Your task to perform on an android device: toggle translation in the chrome app Image 0: 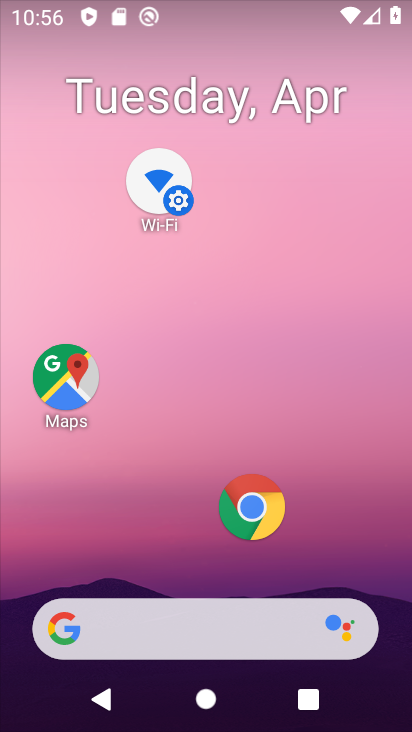
Step 0: click (262, 493)
Your task to perform on an android device: toggle translation in the chrome app Image 1: 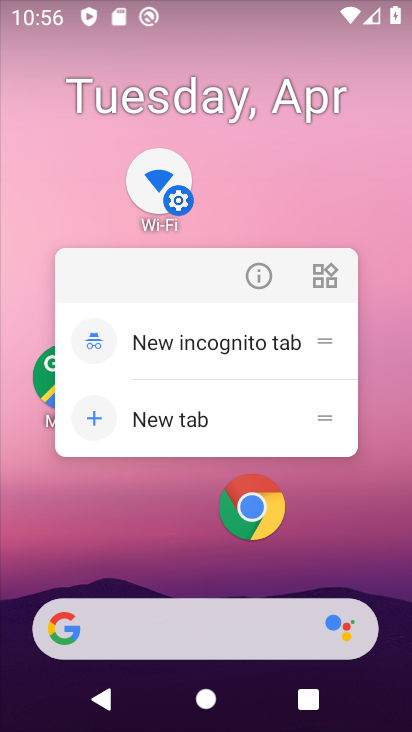
Step 1: click (267, 530)
Your task to perform on an android device: toggle translation in the chrome app Image 2: 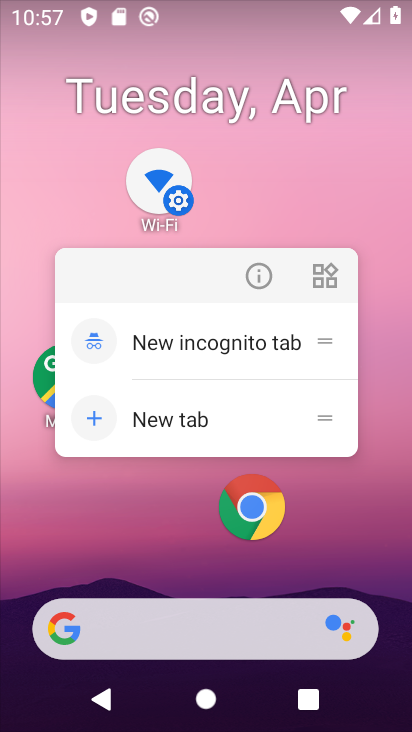
Step 2: click (272, 505)
Your task to perform on an android device: toggle translation in the chrome app Image 3: 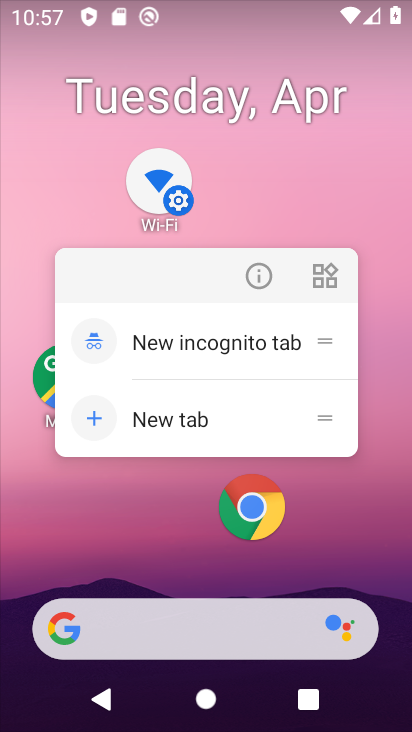
Step 3: click (253, 494)
Your task to perform on an android device: toggle translation in the chrome app Image 4: 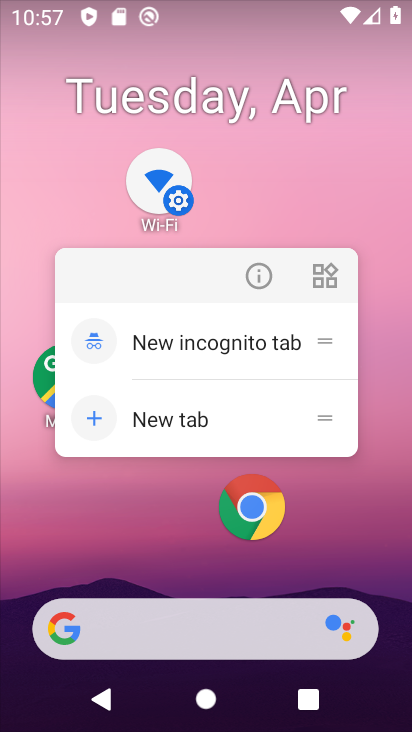
Step 4: click (248, 496)
Your task to perform on an android device: toggle translation in the chrome app Image 5: 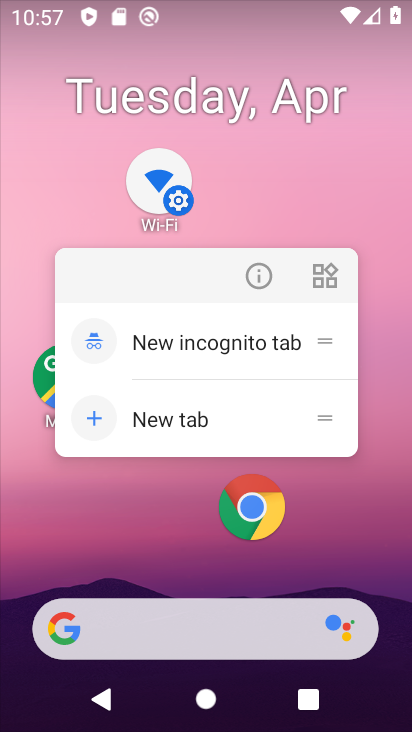
Step 5: click (248, 496)
Your task to perform on an android device: toggle translation in the chrome app Image 6: 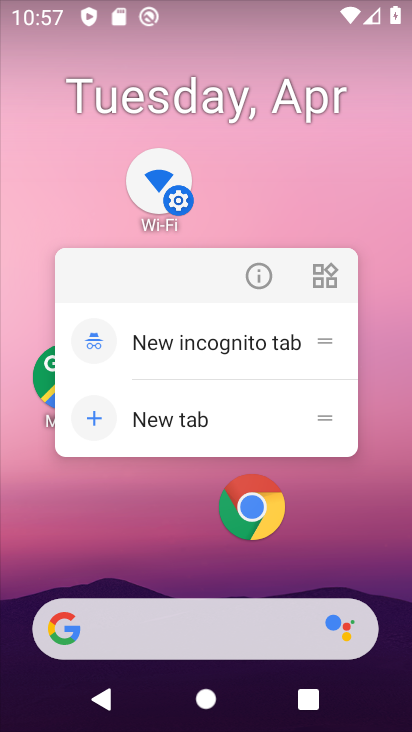
Step 6: click (248, 500)
Your task to perform on an android device: toggle translation in the chrome app Image 7: 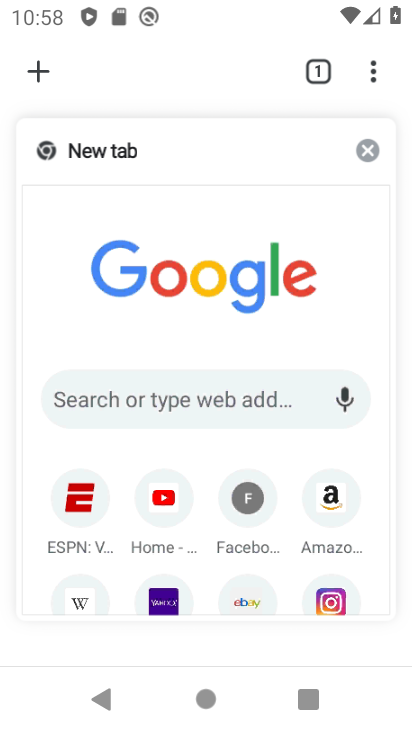
Step 7: click (376, 74)
Your task to perform on an android device: toggle translation in the chrome app Image 8: 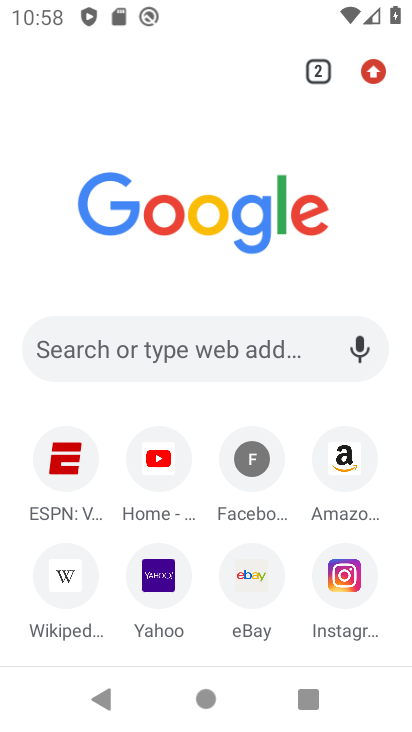
Step 8: click (328, 69)
Your task to perform on an android device: toggle translation in the chrome app Image 9: 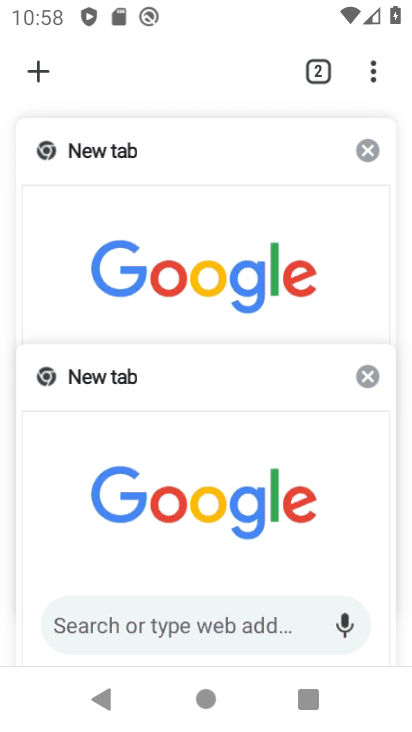
Step 9: click (368, 148)
Your task to perform on an android device: toggle translation in the chrome app Image 10: 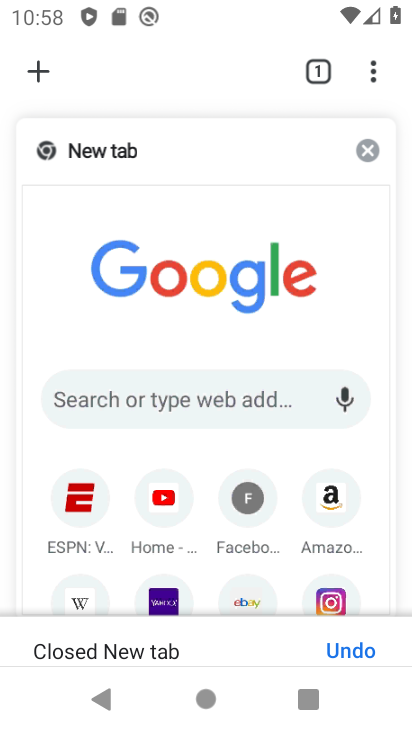
Step 10: click (374, 66)
Your task to perform on an android device: toggle translation in the chrome app Image 11: 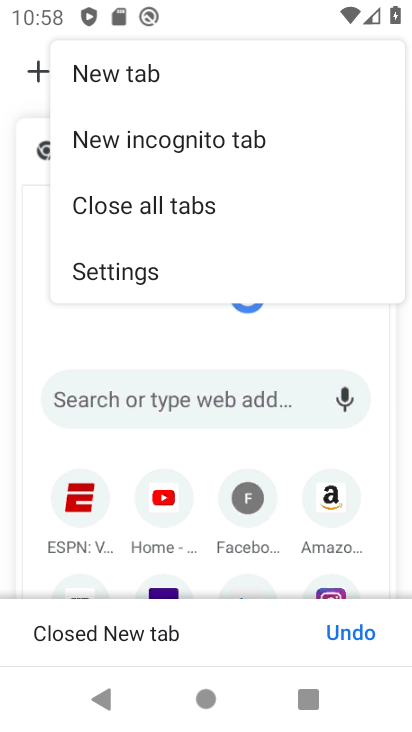
Step 11: click (150, 263)
Your task to perform on an android device: toggle translation in the chrome app Image 12: 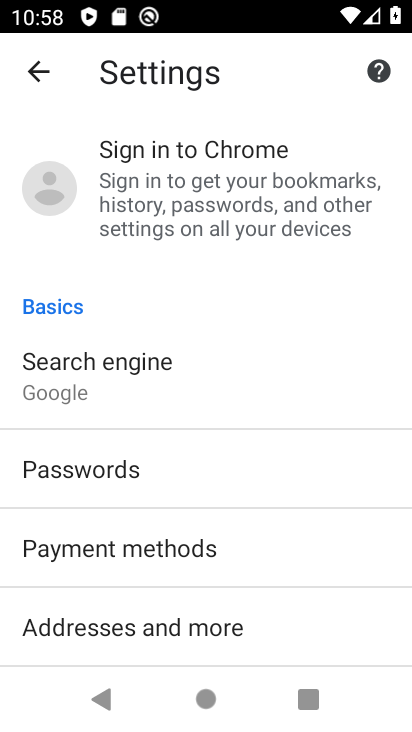
Step 12: drag from (166, 563) to (214, 231)
Your task to perform on an android device: toggle translation in the chrome app Image 13: 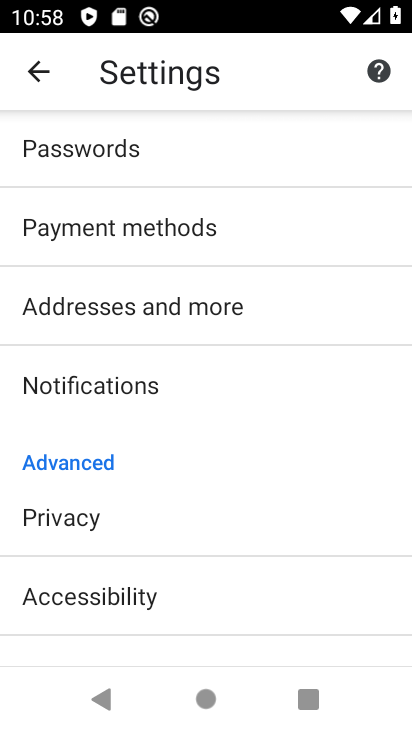
Step 13: drag from (237, 625) to (334, 169)
Your task to perform on an android device: toggle translation in the chrome app Image 14: 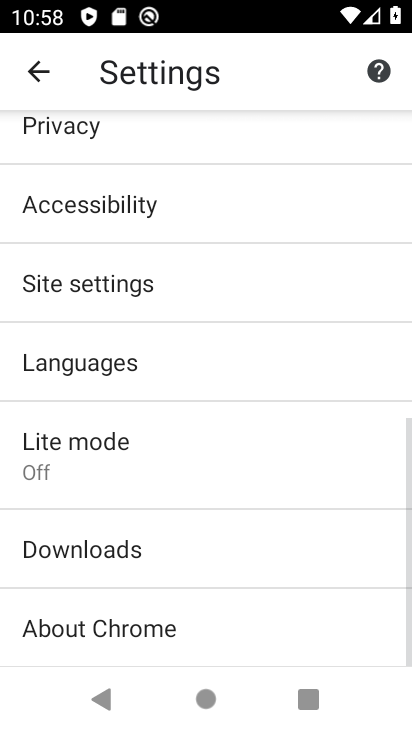
Step 14: click (156, 376)
Your task to perform on an android device: toggle translation in the chrome app Image 15: 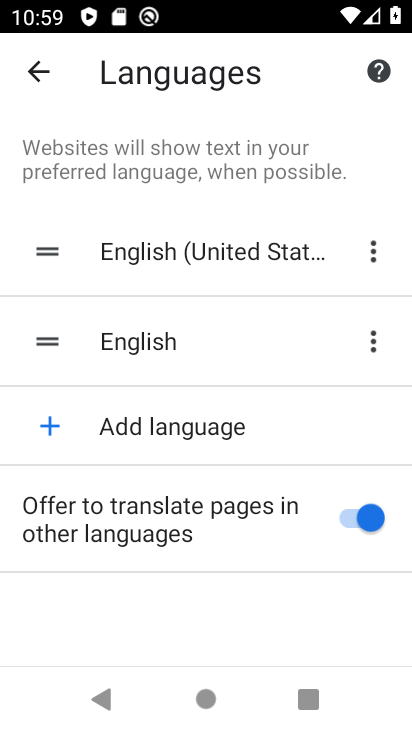
Step 15: click (384, 510)
Your task to perform on an android device: toggle translation in the chrome app Image 16: 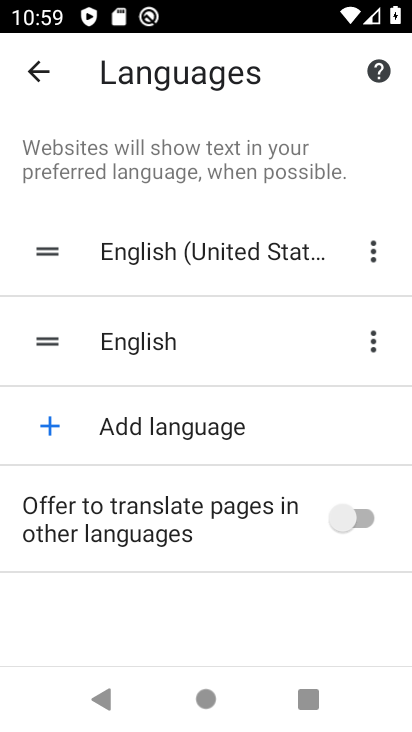
Step 16: task complete